Your task to perform on an android device: see creations saved in the google photos Image 0: 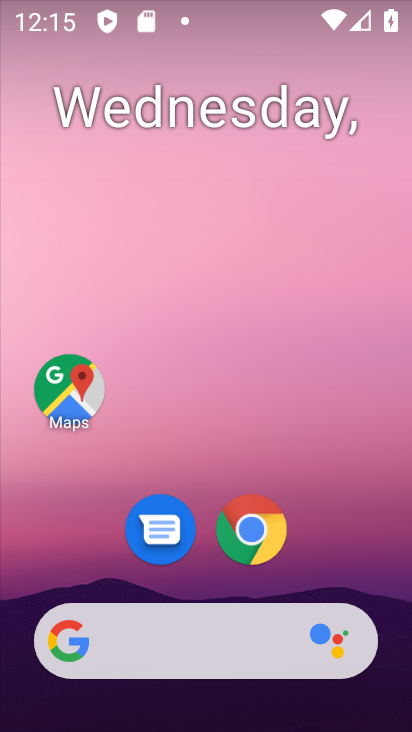
Step 0: drag from (333, 553) to (337, 153)
Your task to perform on an android device: see creations saved in the google photos Image 1: 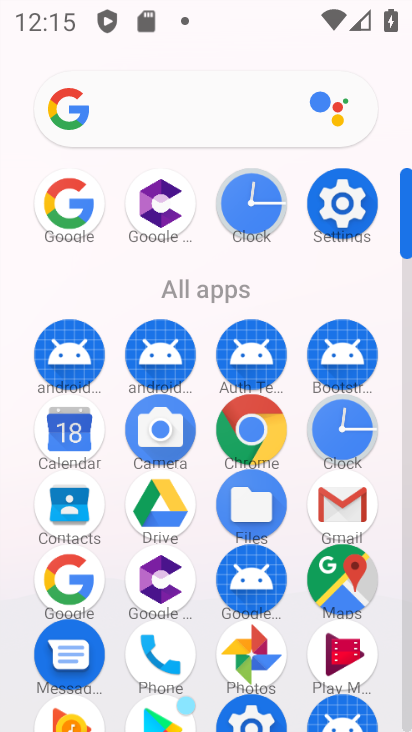
Step 1: click (240, 655)
Your task to perform on an android device: see creations saved in the google photos Image 2: 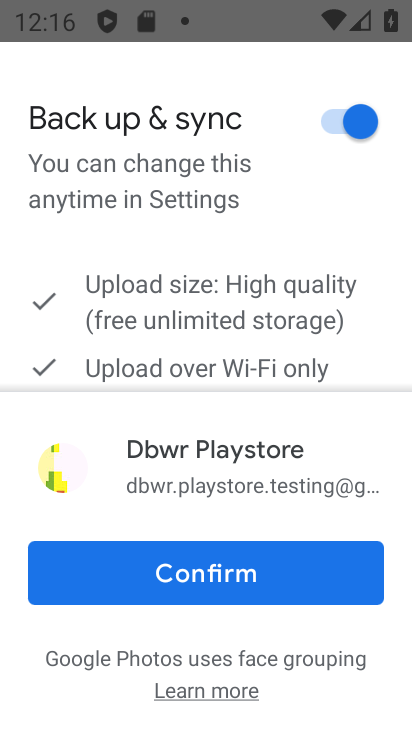
Step 2: click (268, 583)
Your task to perform on an android device: see creations saved in the google photos Image 3: 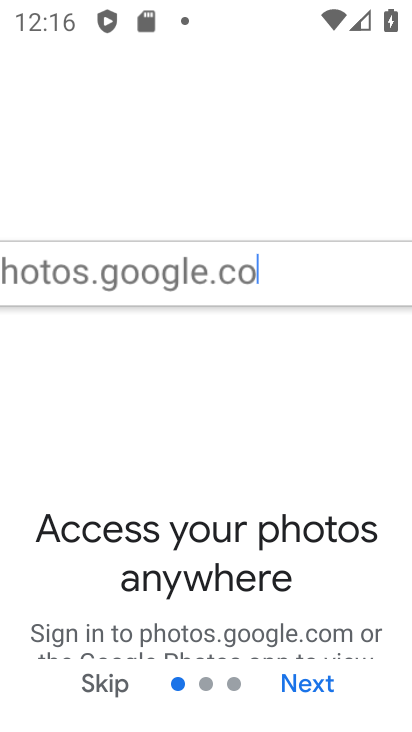
Step 3: click (105, 684)
Your task to perform on an android device: see creations saved in the google photos Image 4: 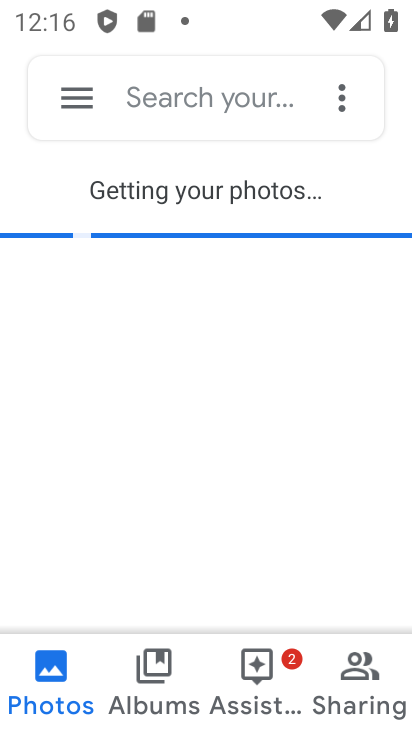
Step 4: click (177, 92)
Your task to perform on an android device: see creations saved in the google photos Image 5: 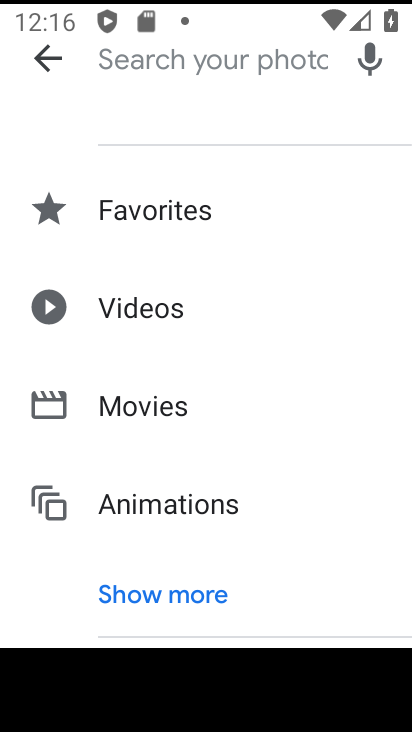
Step 5: click (176, 596)
Your task to perform on an android device: see creations saved in the google photos Image 6: 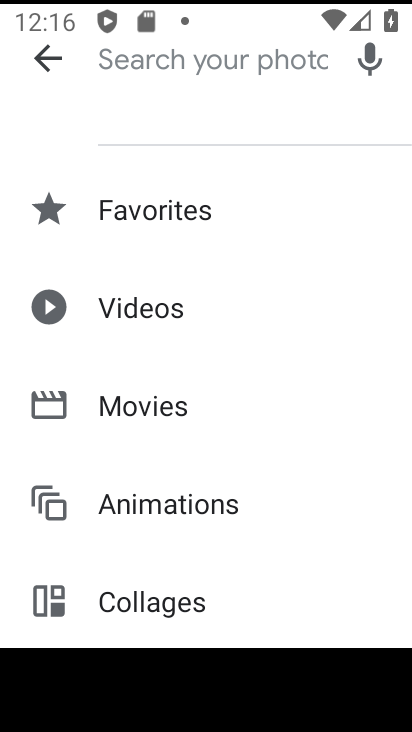
Step 6: drag from (223, 503) to (262, 279)
Your task to perform on an android device: see creations saved in the google photos Image 7: 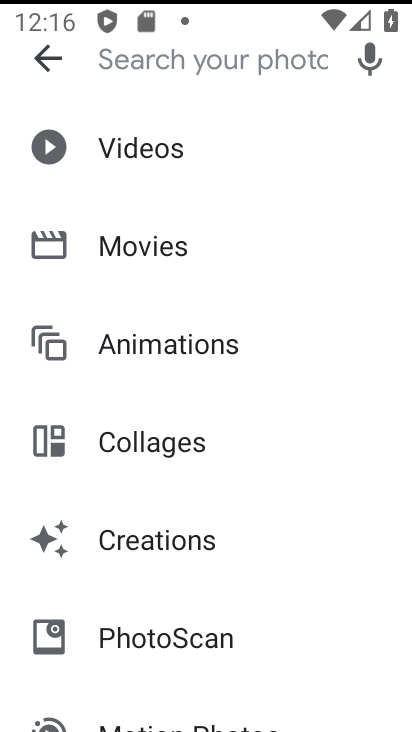
Step 7: click (185, 534)
Your task to perform on an android device: see creations saved in the google photos Image 8: 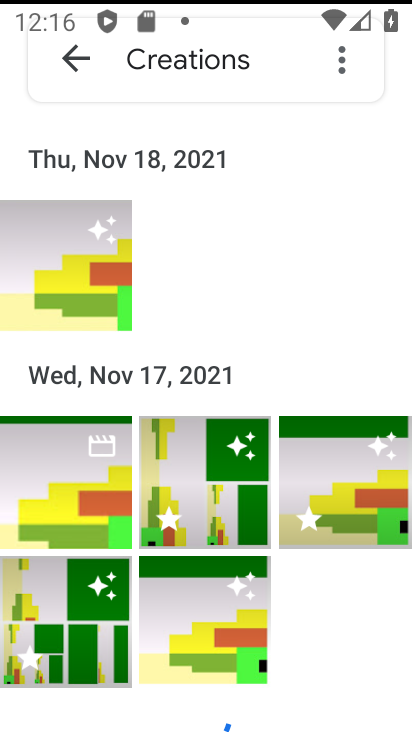
Step 8: task complete